Your task to perform on an android device: open device folders in google photos Image 0: 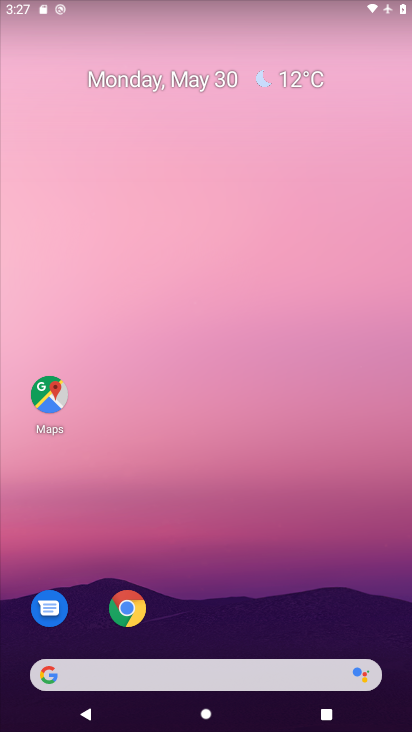
Step 0: drag from (242, 315) to (163, 18)
Your task to perform on an android device: open device folders in google photos Image 1: 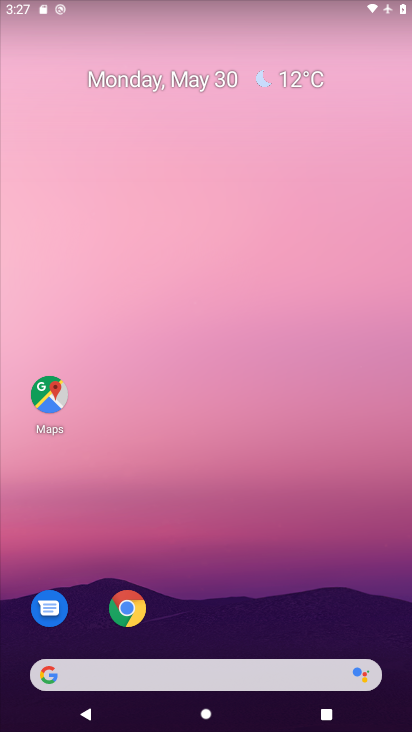
Step 1: drag from (232, 618) to (141, 9)
Your task to perform on an android device: open device folders in google photos Image 2: 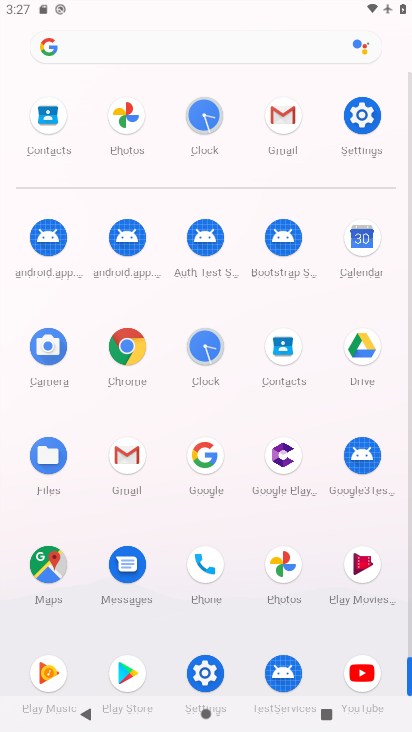
Step 2: click (300, 563)
Your task to perform on an android device: open device folders in google photos Image 3: 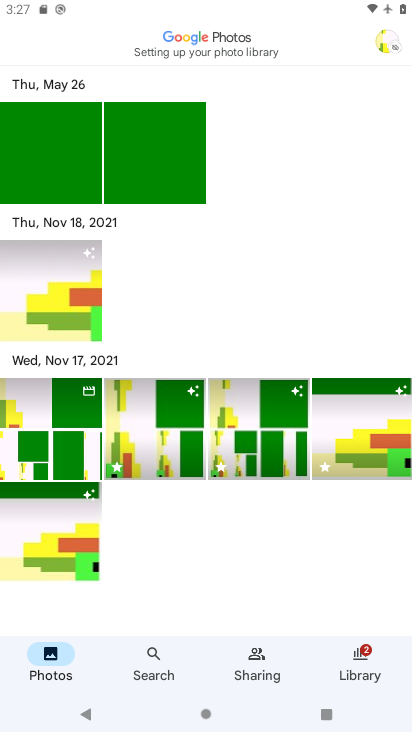
Step 3: click (387, 49)
Your task to perform on an android device: open device folders in google photos Image 4: 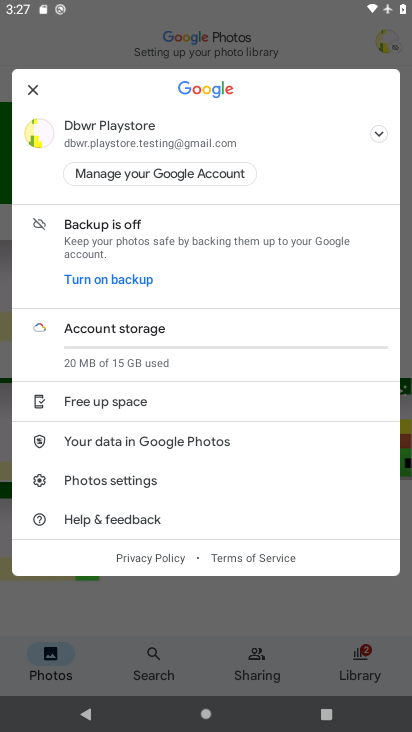
Step 4: click (298, 51)
Your task to perform on an android device: open device folders in google photos Image 5: 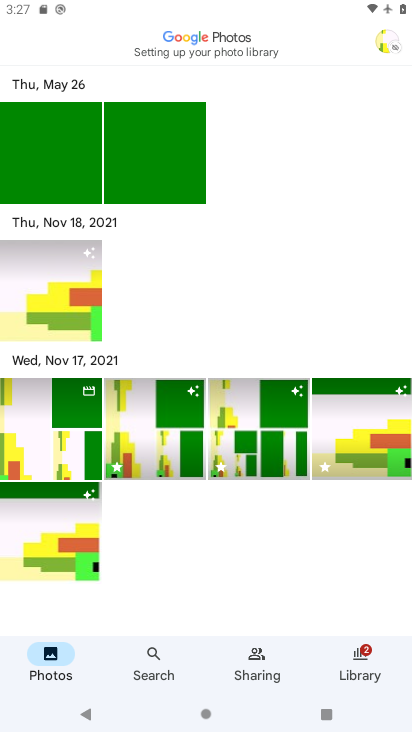
Step 5: click (164, 653)
Your task to perform on an android device: open device folders in google photos Image 6: 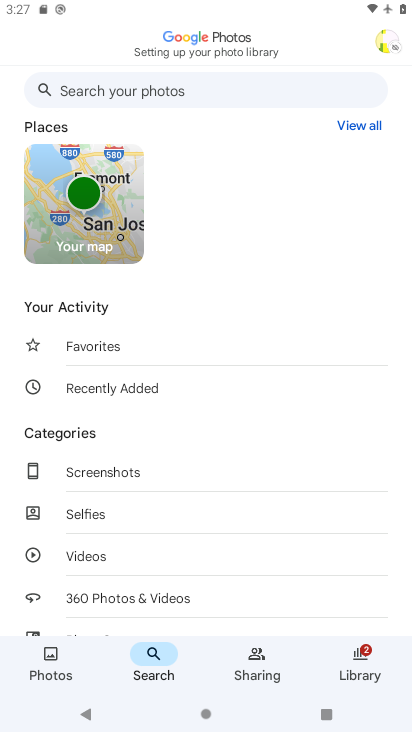
Step 6: click (161, 93)
Your task to perform on an android device: open device folders in google photos Image 7: 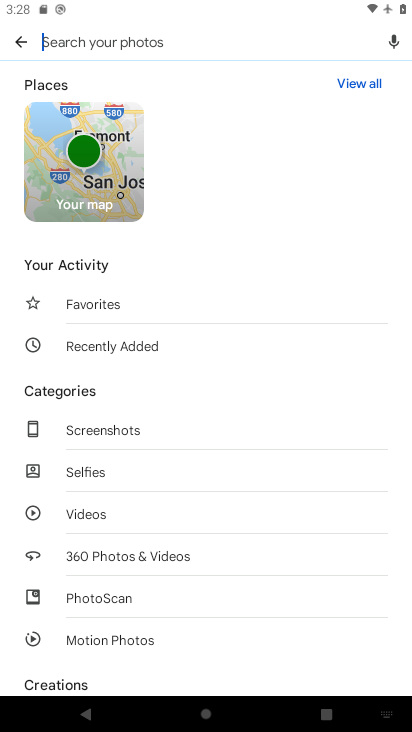
Step 7: type "device folders"
Your task to perform on an android device: open device folders in google photos Image 8: 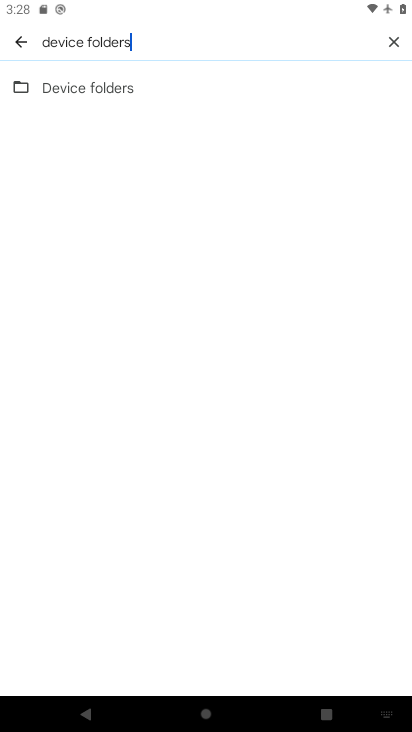
Step 8: click (122, 76)
Your task to perform on an android device: open device folders in google photos Image 9: 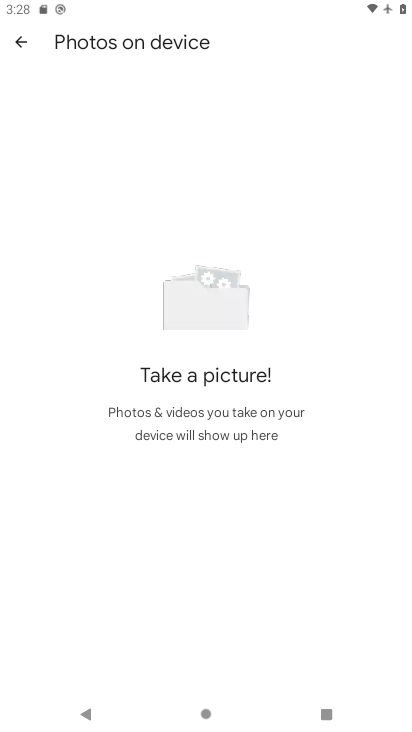
Step 9: task complete